Your task to perform on an android device: toggle data saver in the chrome app Image 0: 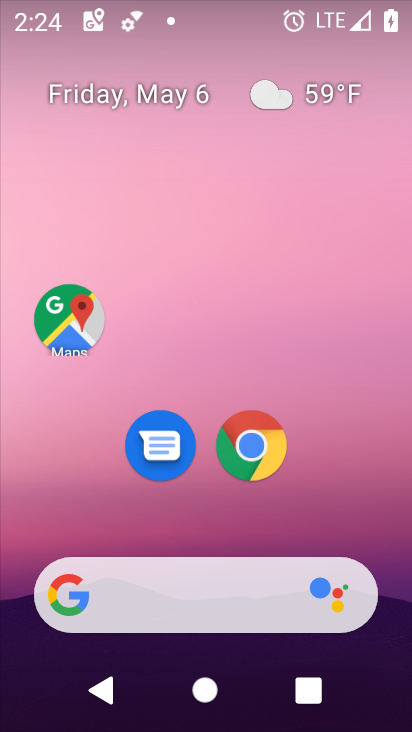
Step 0: click (260, 450)
Your task to perform on an android device: toggle data saver in the chrome app Image 1: 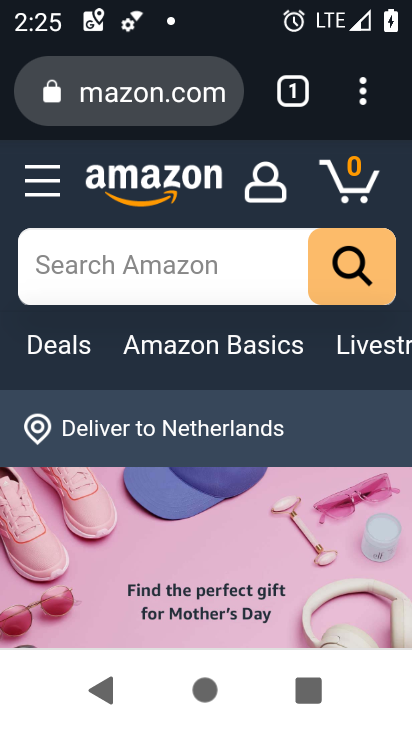
Step 1: click (366, 101)
Your task to perform on an android device: toggle data saver in the chrome app Image 2: 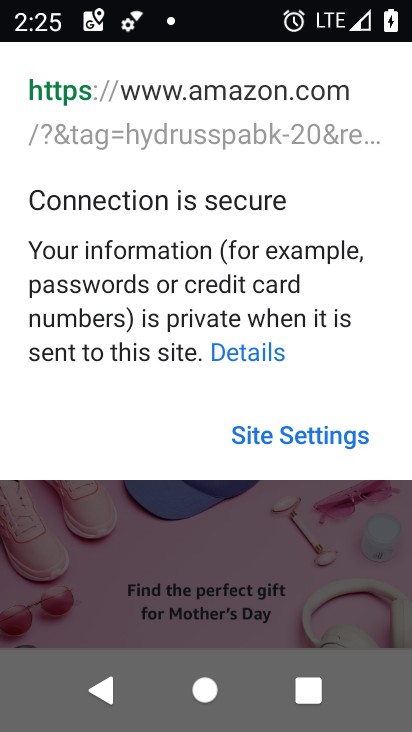
Step 2: click (335, 530)
Your task to perform on an android device: toggle data saver in the chrome app Image 3: 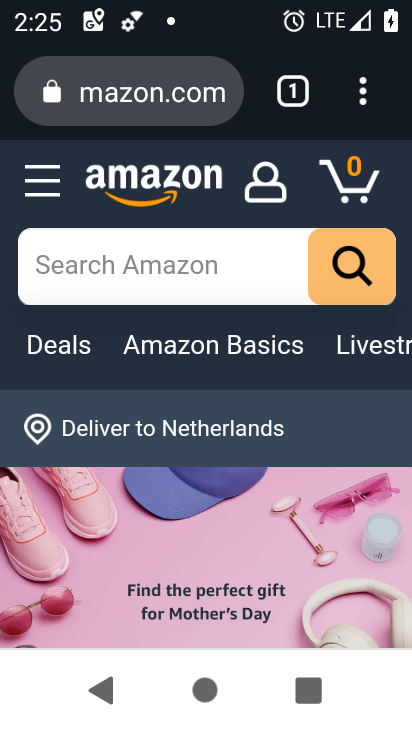
Step 3: click (357, 109)
Your task to perform on an android device: toggle data saver in the chrome app Image 4: 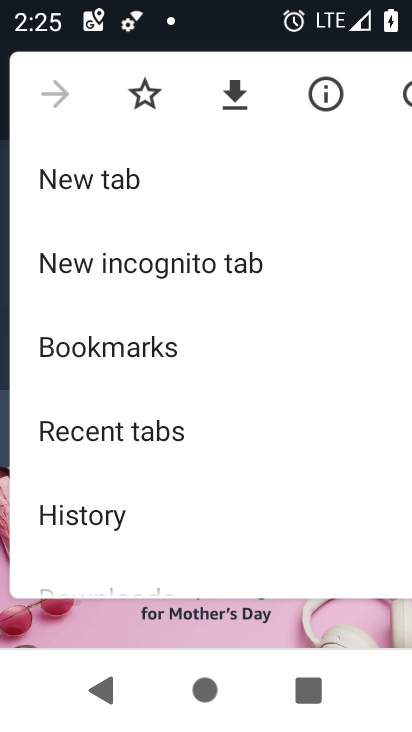
Step 4: drag from (212, 527) to (222, 368)
Your task to perform on an android device: toggle data saver in the chrome app Image 5: 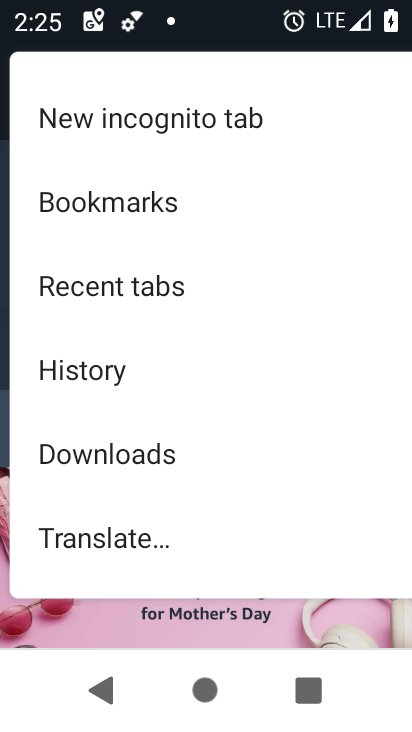
Step 5: drag from (211, 559) to (244, 360)
Your task to perform on an android device: toggle data saver in the chrome app Image 6: 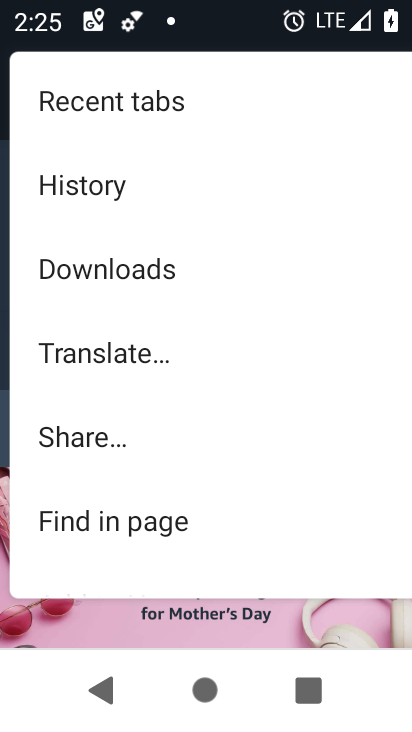
Step 6: drag from (170, 529) to (173, 326)
Your task to perform on an android device: toggle data saver in the chrome app Image 7: 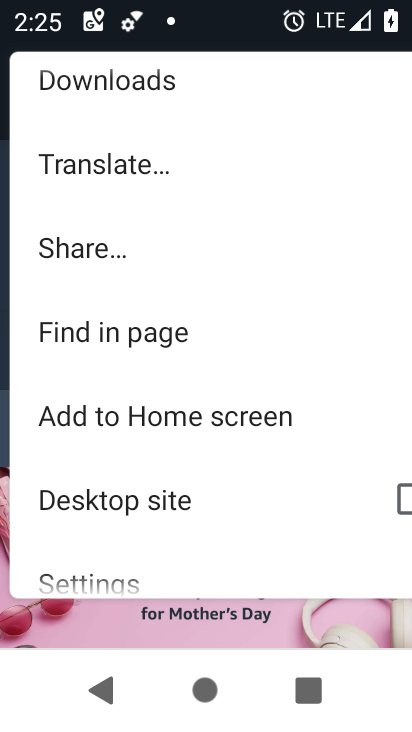
Step 7: drag from (126, 541) to (182, 336)
Your task to perform on an android device: toggle data saver in the chrome app Image 8: 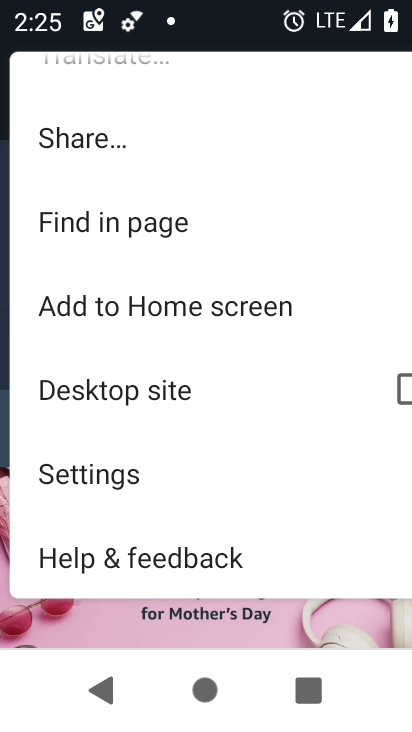
Step 8: click (130, 473)
Your task to perform on an android device: toggle data saver in the chrome app Image 9: 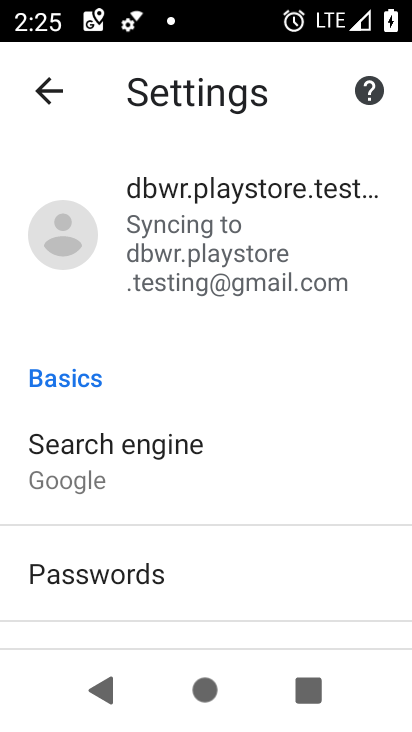
Step 9: drag from (189, 593) to (262, 367)
Your task to perform on an android device: toggle data saver in the chrome app Image 10: 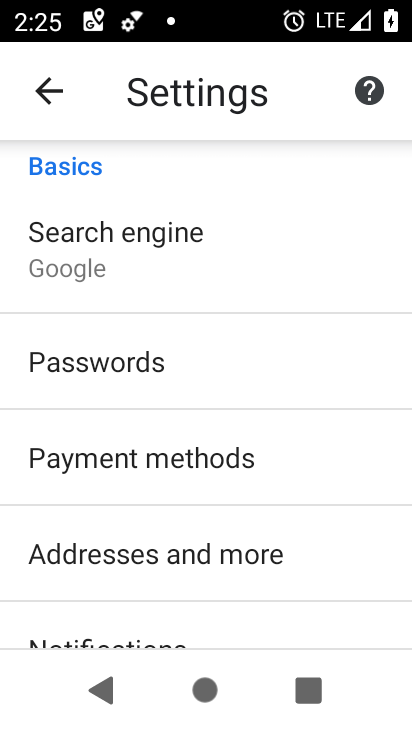
Step 10: drag from (227, 544) to (221, 405)
Your task to perform on an android device: toggle data saver in the chrome app Image 11: 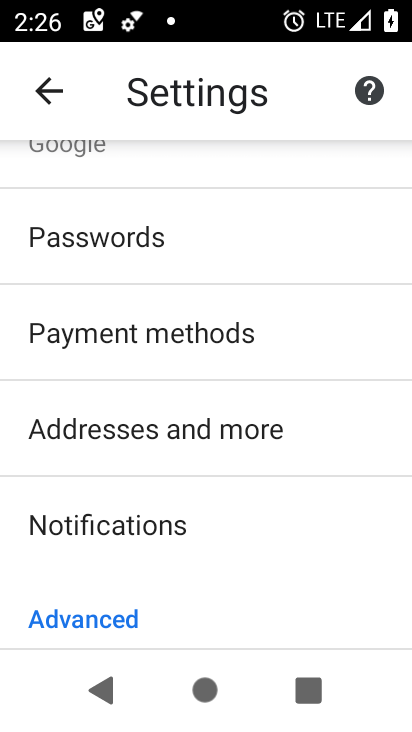
Step 11: drag from (200, 566) to (206, 379)
Your task to perform on an android device: toggle data saver in the chrome app Image 12: 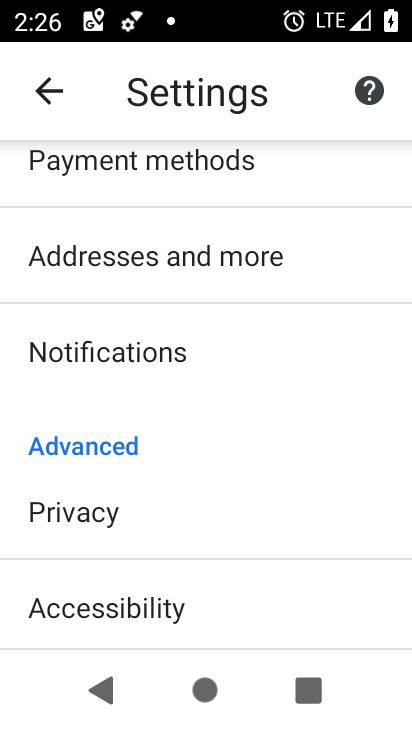
Step 12: drag from (225, 574) to (226, 446)
Your task to perform on an android device: toggle data saver in the chrome app Image 13: 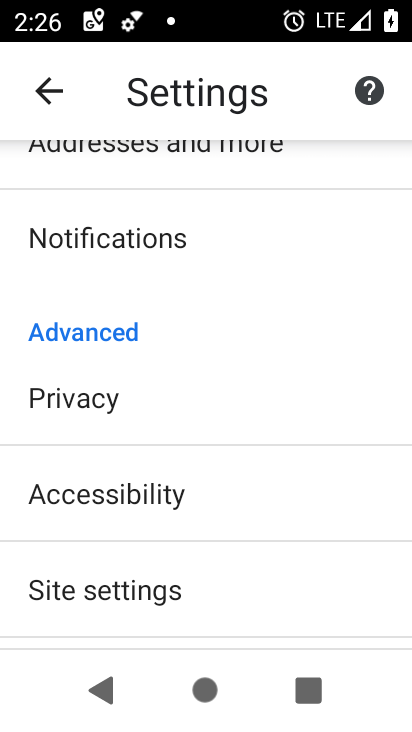
Step 13: drag from (251, 580) to (241, 461)
Your task to perform on an android device: toggle data saver in the chrome app Image 14: 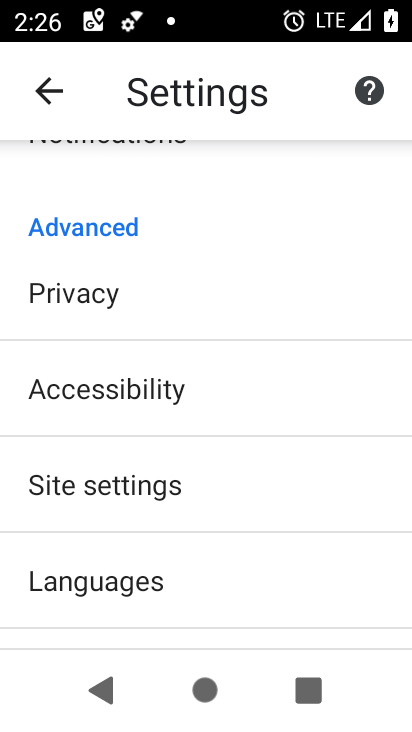
Step 14: drag from (177, 620) to (178, 469)
Your task to perform on an android device: toggle data saver in the chrome app Image 15: 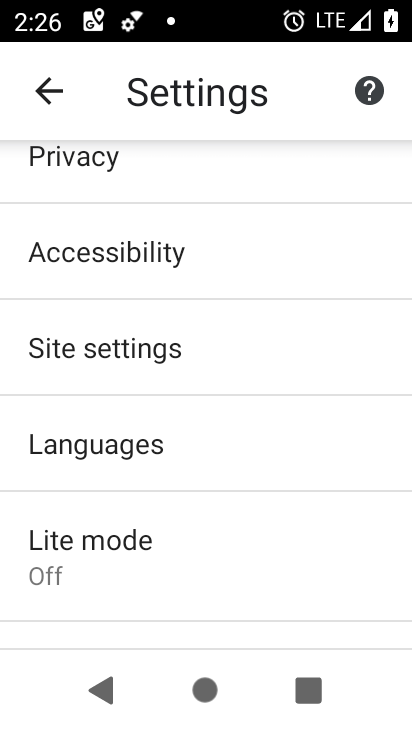
Step 15: click (160, 568)
Your task to perform on an android device: toggle data saver in the chrome app Image 16: 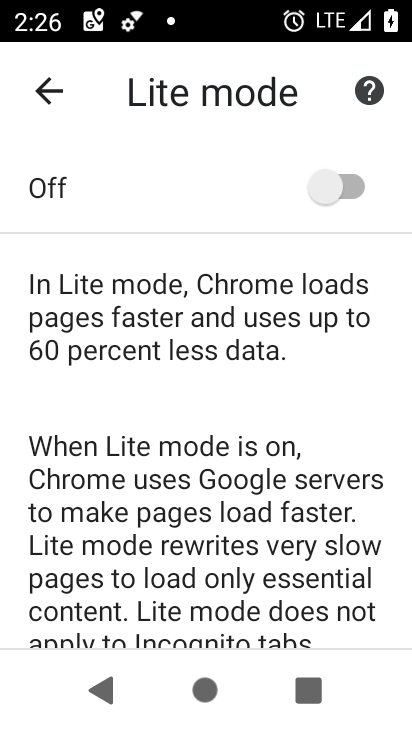
Step 16: click (321, 186)
Your task to perform on an android device: toggle data saver in the chrome app Image 17: 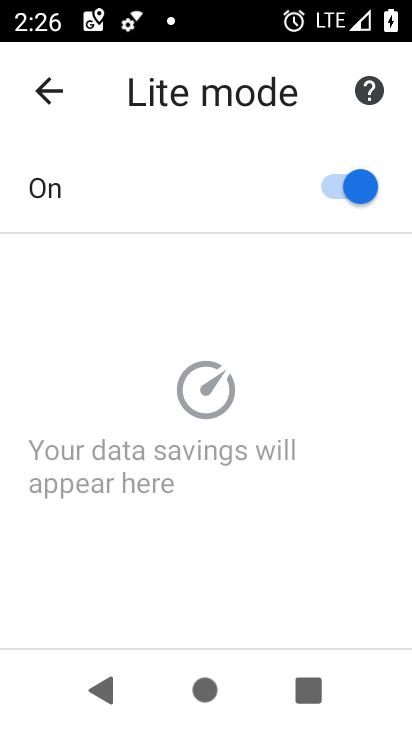
Step 17: task complete